Your task to perform on an android device: Turn off the flashlight Image 0: 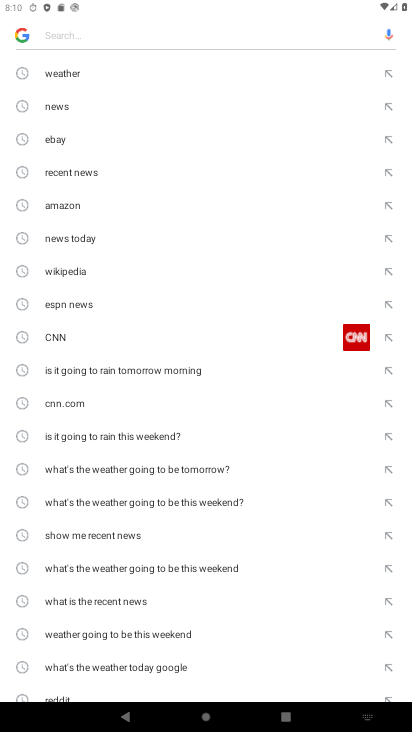
Step 0: press home button
Your task to perform on an android device: Turn off the flashlight Image 1: 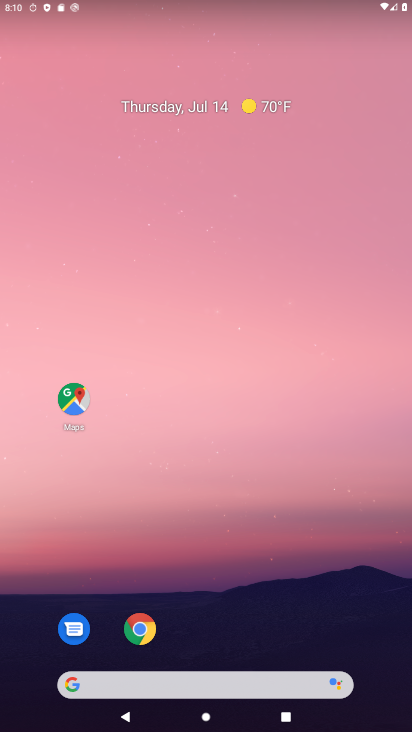
Step 1: drag from (290, 639) to (259, 81)
Your task to perform on an android device: Turn off the flashlight Image 2: 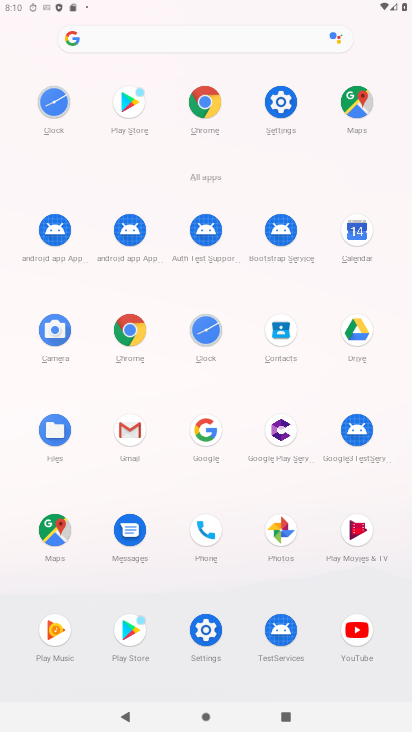
Step 2: click (288, 117)
Your task to perform on an android device: Turn off the flashlight Image 3: 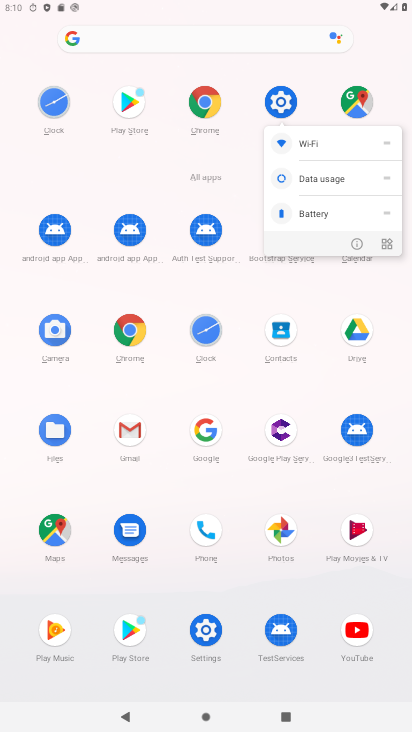
Step 3: click (284, 93)
Your task to perform on an android device: Turn off the flashlight Image 4: 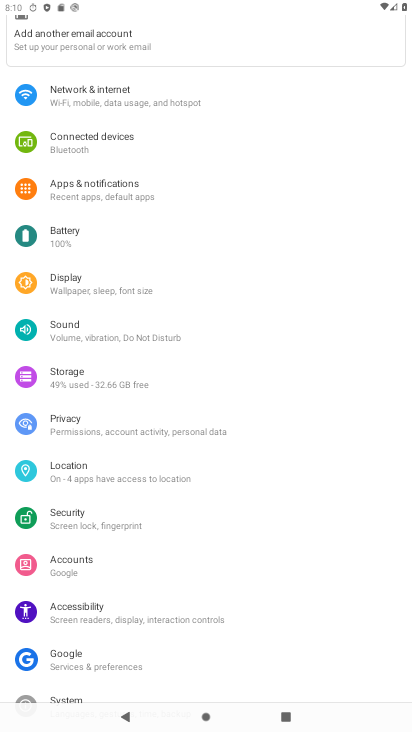
Step 4: task complete